Your task to perform on an android device: Open ESPN.com Image 0: 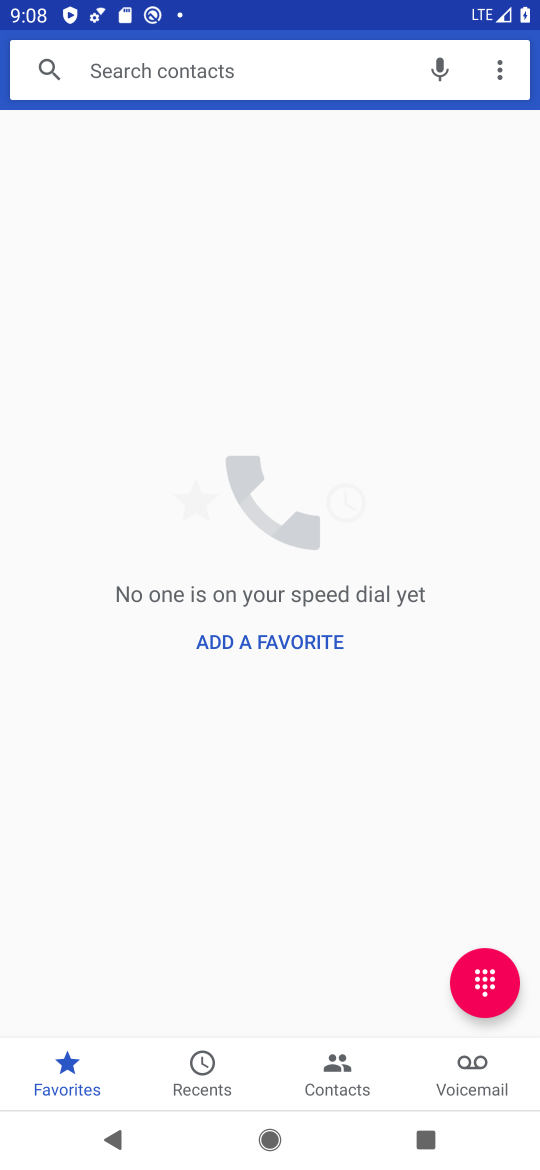
Step 0: press home button
Your task to perform on an android device: Open ESPN.com Image 1: 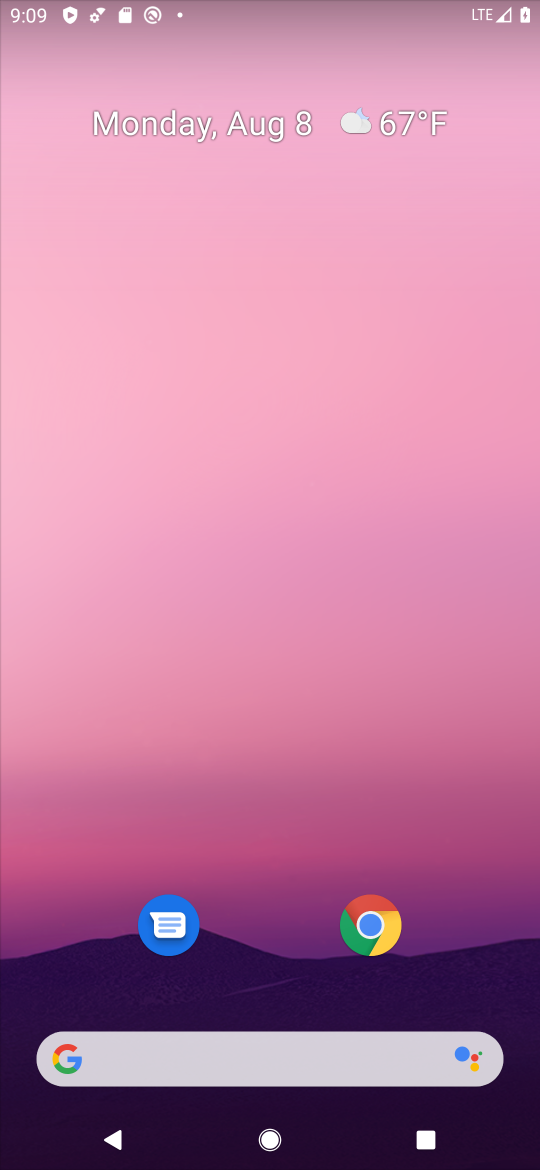
Step 1: drag from (274, 722) to (341, 101)
Your task to perform on an android device: Open ESPN.com Image 2: 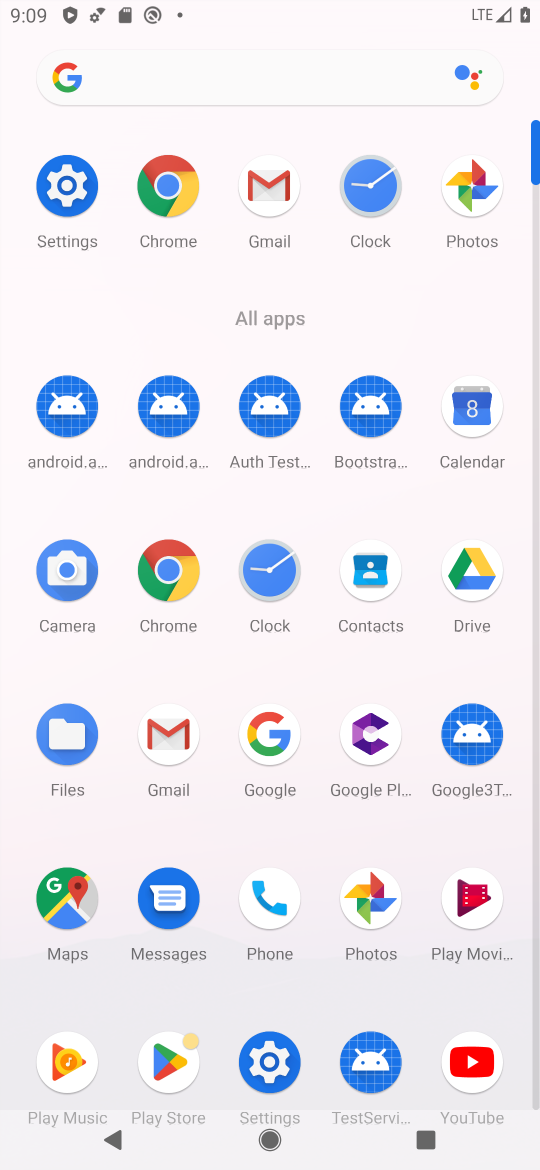
Step 2: click (167, 568)
Your task to perform on an android device: Open ESPN.com Image 3: 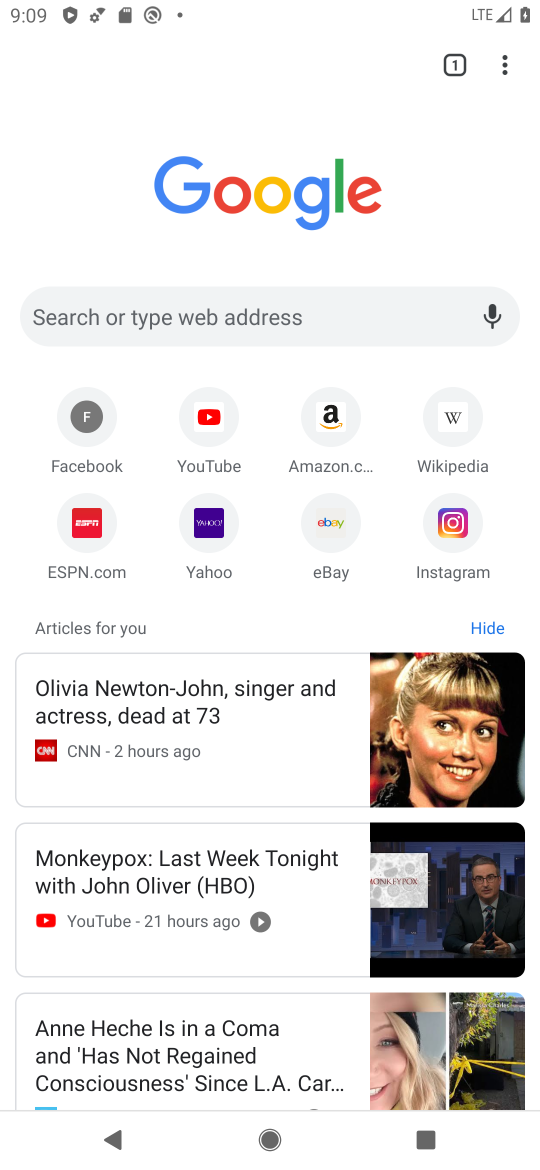
Step 3: click (84, 547)
Your task to perform on an android device: Open ESPN.com Image 4: 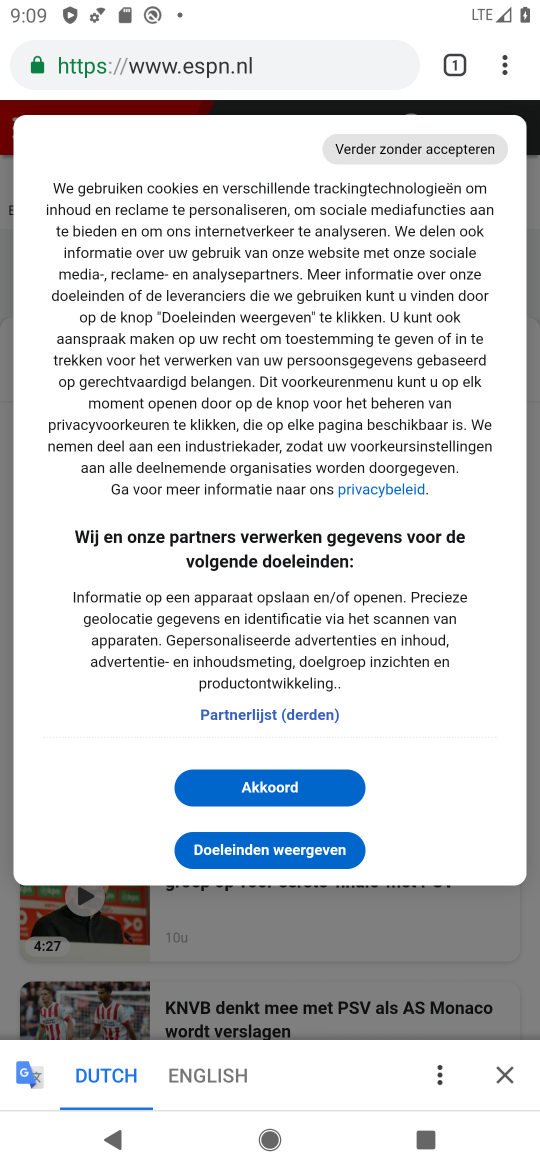
Step 4: task complete